Your task to perform on an android device: Open the phone app and click the voicemail tab. Image 0: 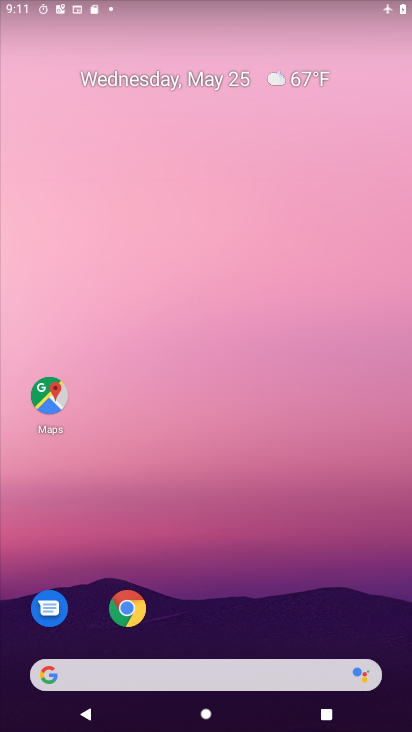
Step 0: drag from (231, 720) to (188, 14)
Your task to perform on an android device: Open the phone app and click the voicemail tab. Image 1: 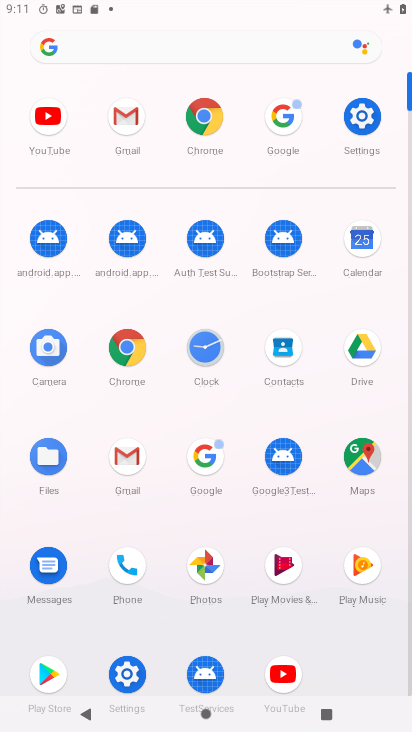
Step 1: click (123, 566)
Your task to perform on an android device: Open the phone app and click the voicemail tab. Image 2: 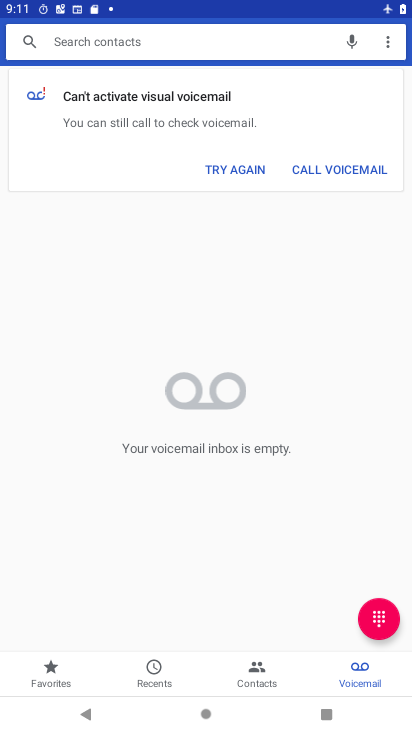
Step 2: task complete